Your task to perform on an android device: open app "Microsoft Excel" (install if not already installed) Image 0: 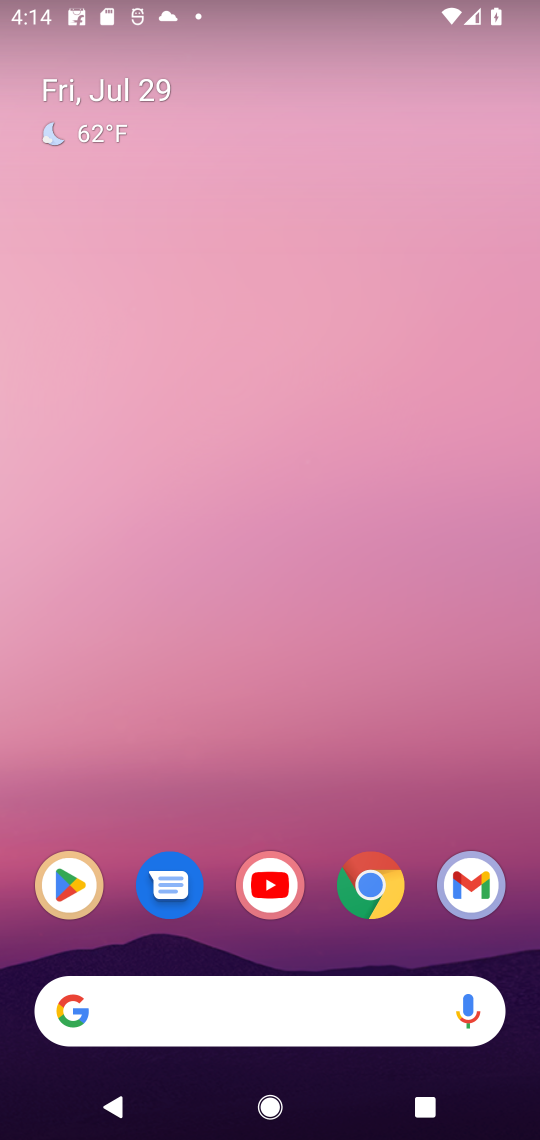
Step 0: click (71, 894)
Your task to perform on an android device: open app "Microsoft Excel" (install if not already installed) Image 1: 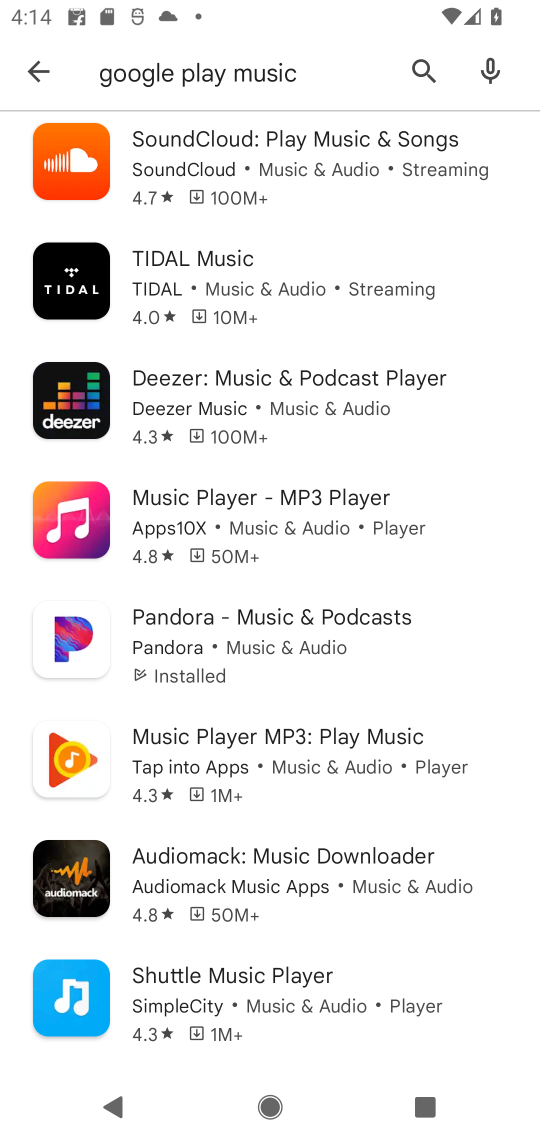
Step 1: click (425, 71)
Your task to perform on an android device: open app "Microsoft Excel" (install if not already installed) Image 2: 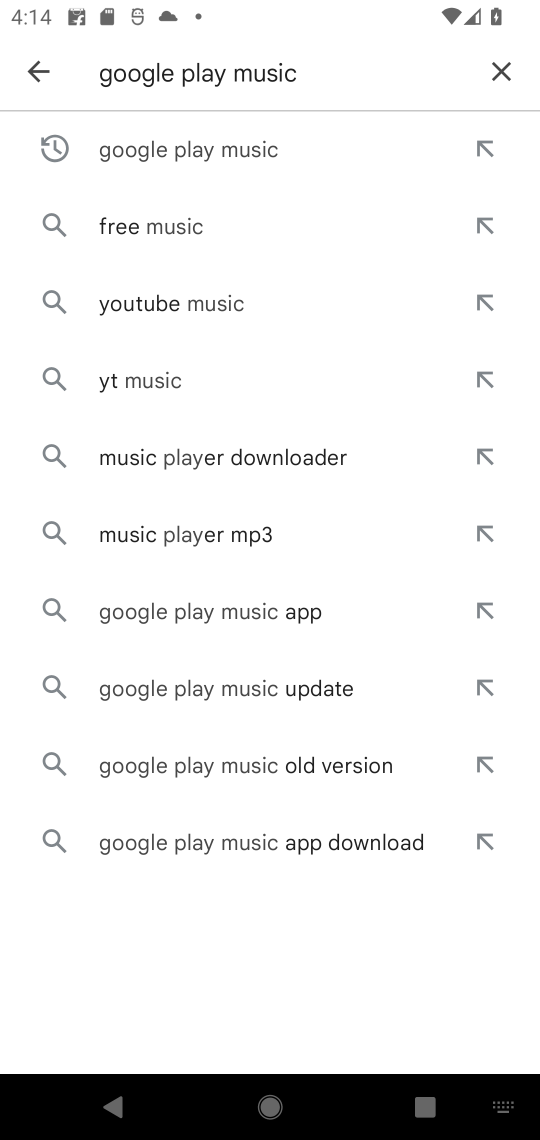
Step 2: click (498, 72)
Your task to perform on an android device: open app "Microsoft Excel" (install if not already installed) Image 3: 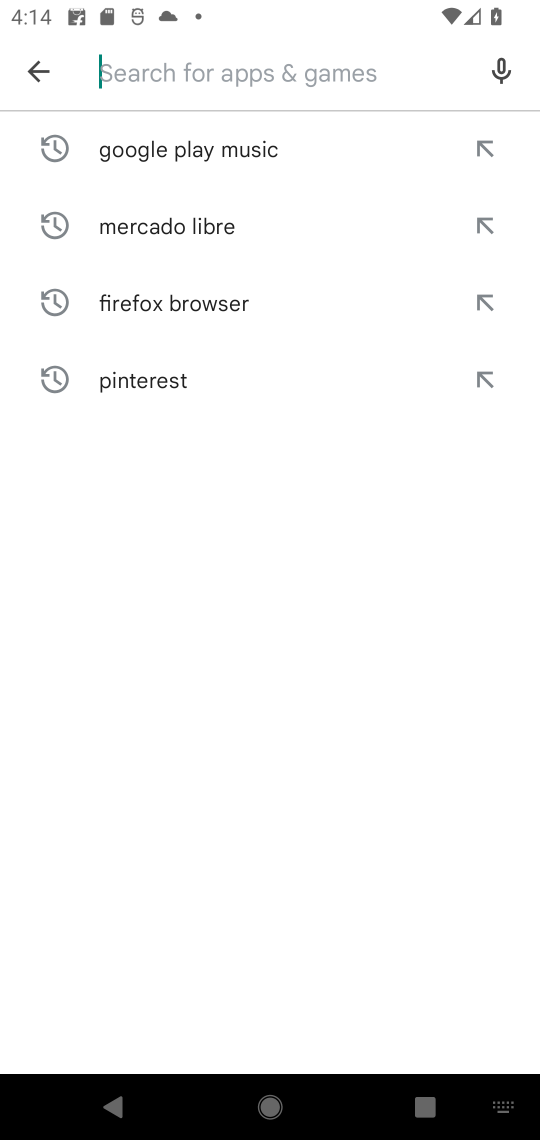
Step 3: type "Microsoft Excel"
Your task to perform on an android device: open app "Microsoft Excel" (install if not already installed) Image 4: 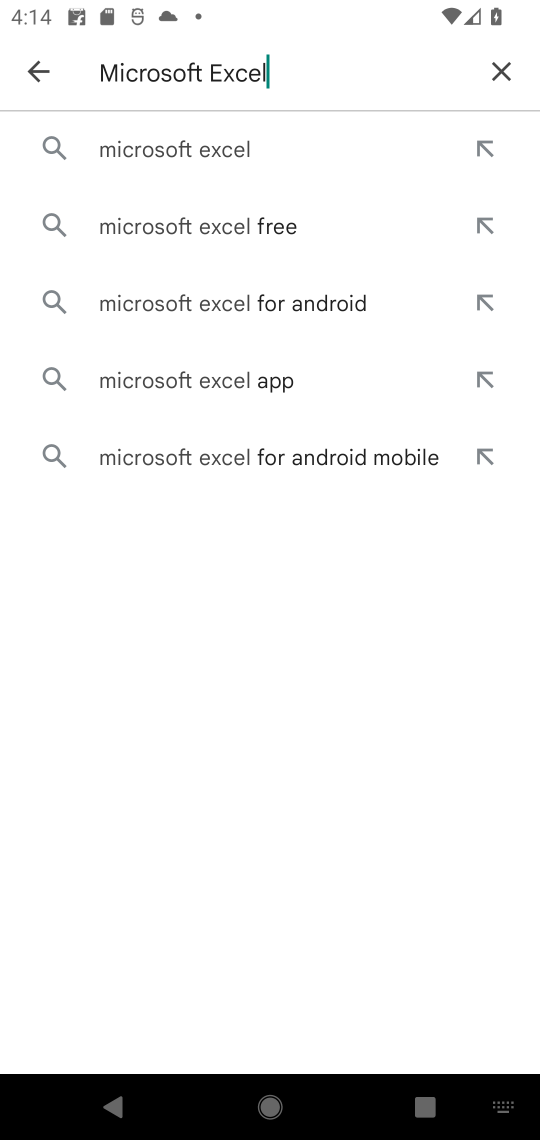
Step 4: click (201, 150)
Your task to perform on an android device: open app "Microsoft Excel" (install if not already installed) Image 5: 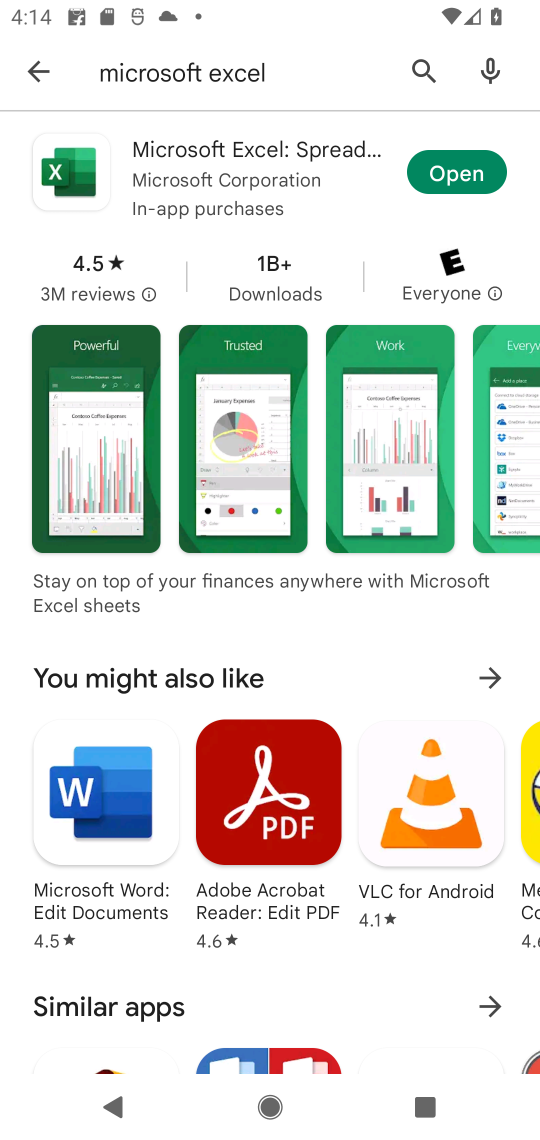
Step 5: click (446, 176)
Your task to perform on an android device: open app "Microsoft Excel" (install if not already installed) Image 6: 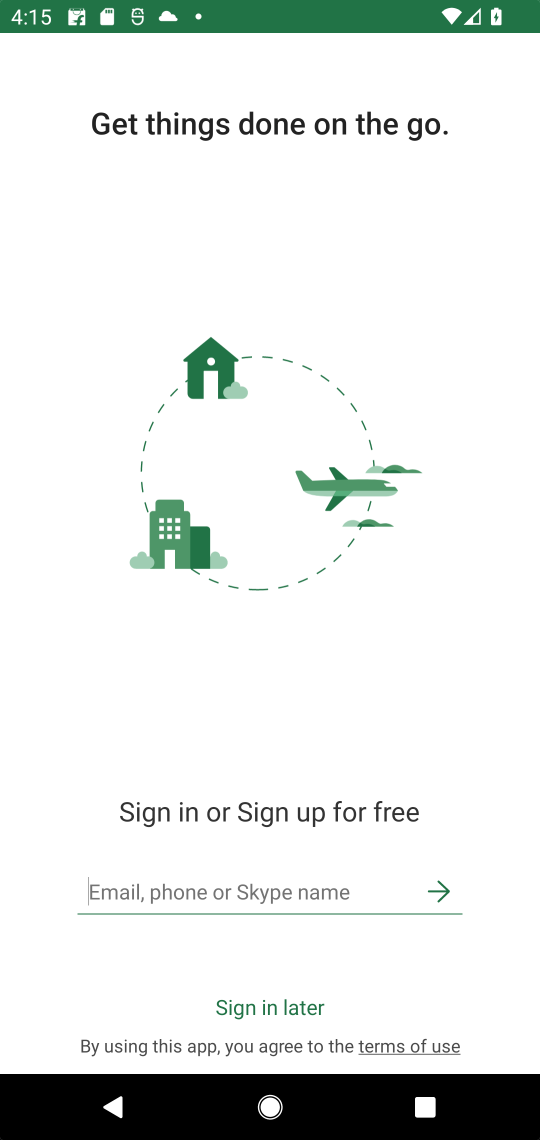
Step 6: task complete